Your task to perform on an android device: open chrome privacy settings Image 0: 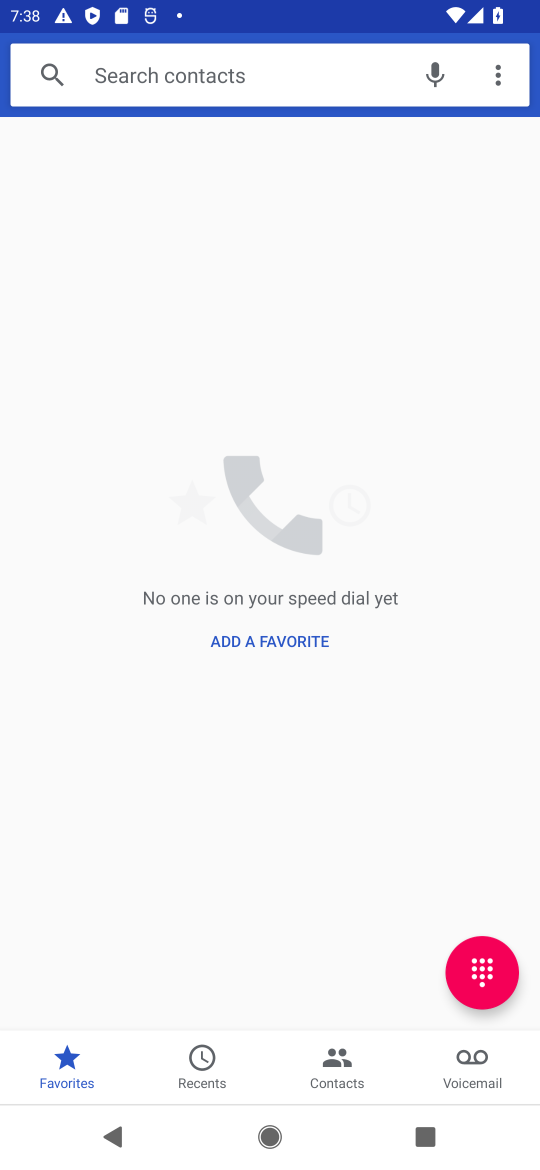
Step 0: press home button
Your task to perform on an android device: open chrome privacy settings Image 1: 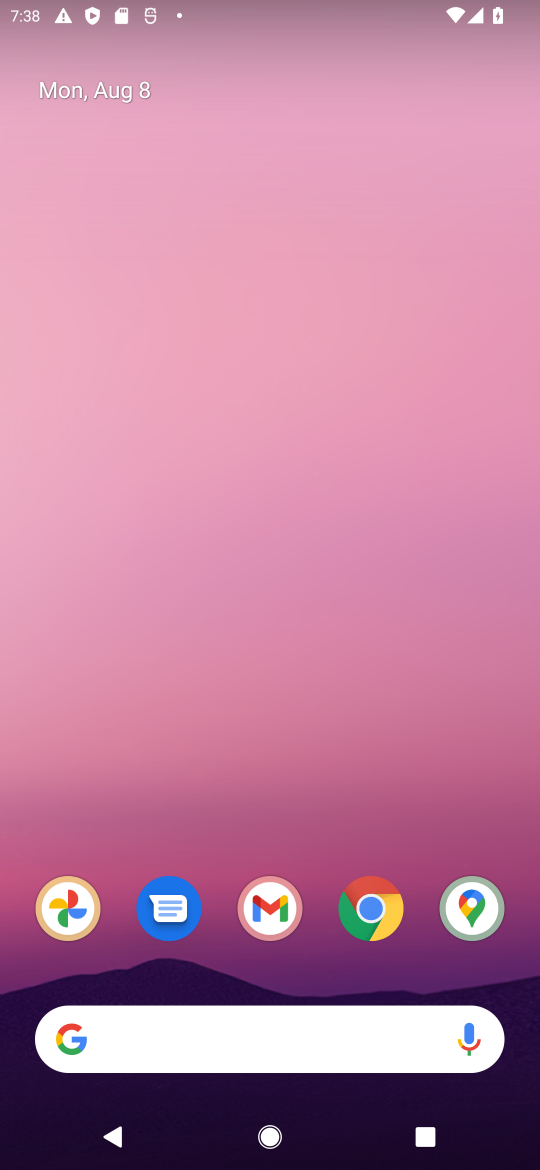
Step 1: click (362, 938)
Your task to perform on an android device: open chrome privacy settings Image 2: 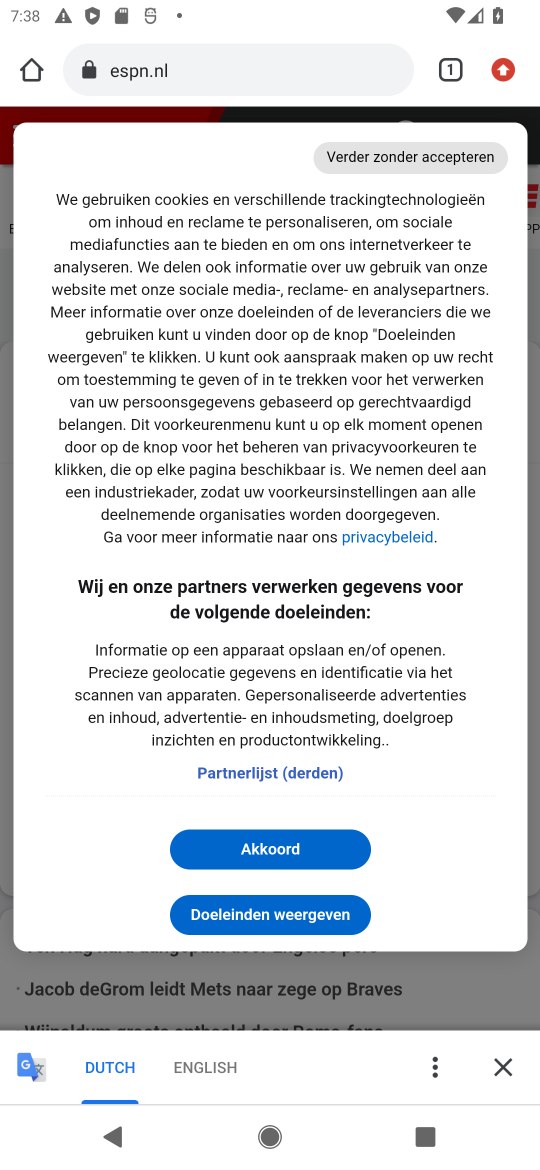
Step 2: click (504, 70)
Your task to perform on an android device: open chrome privacy settings Image 3: 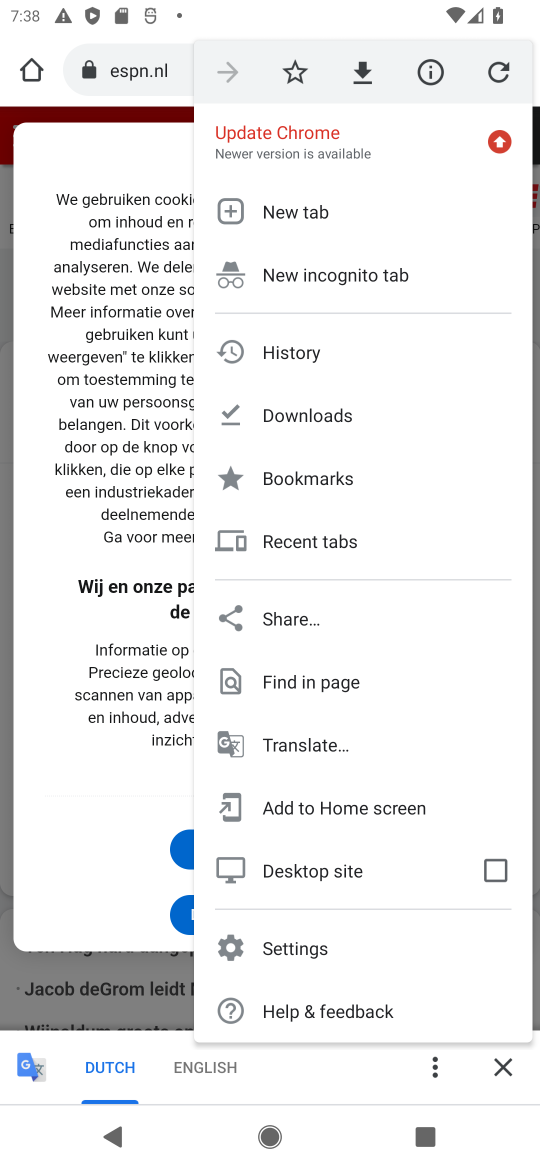
Step 3: click (315, 953)
Your task to perform on an android device: open chrome privacy settings Image 4: 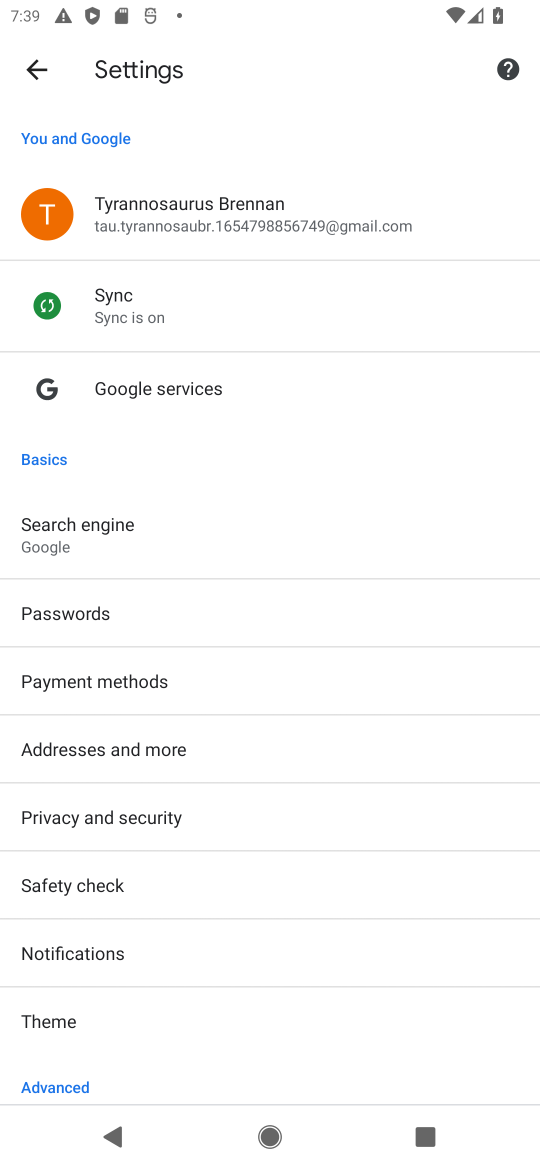
Step 4: click (188, 809)
Your task to perform on an android device: open chrome privacy settings Image 5: 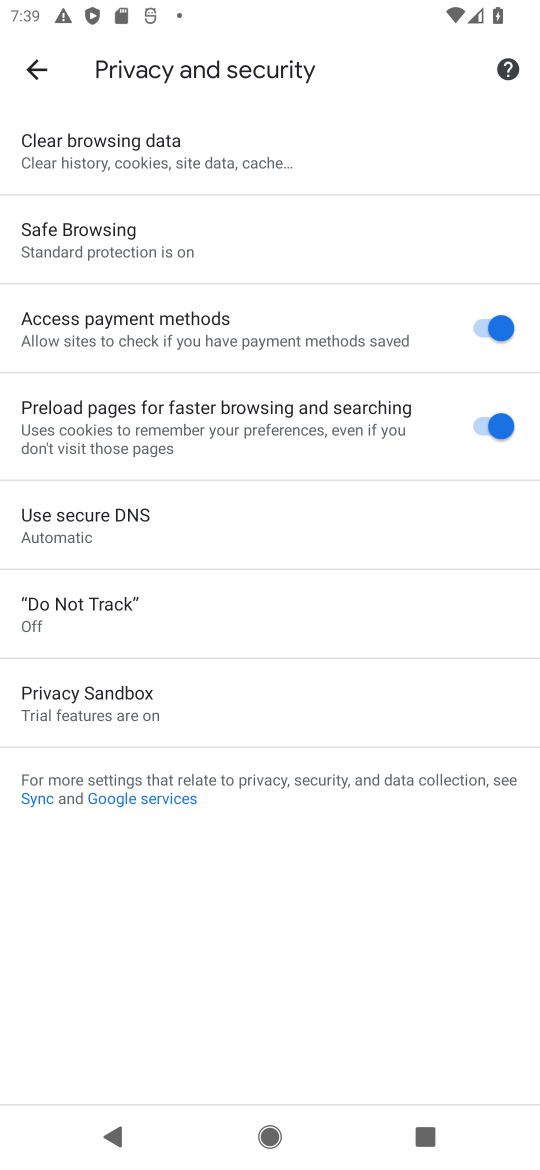
Step 5: task complete